Your task to perform on an android device: open the mobile data screen to see how much data has been used Image 0: 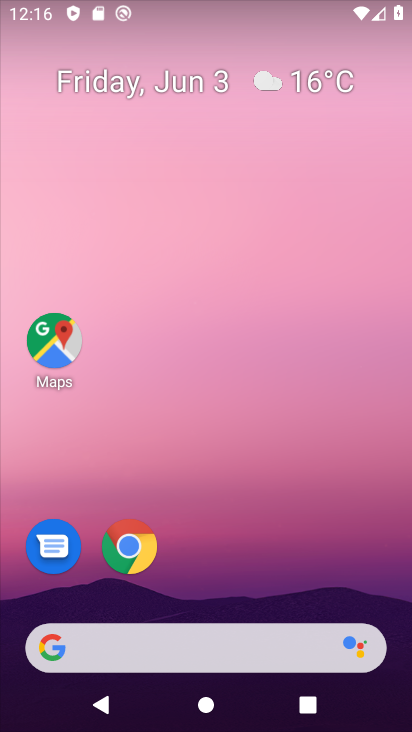
Step 0: drag from (218, 590) to (294, 94)
Your task to perform on an android device: open the mobile data screen to see how much data has been used Image 1: 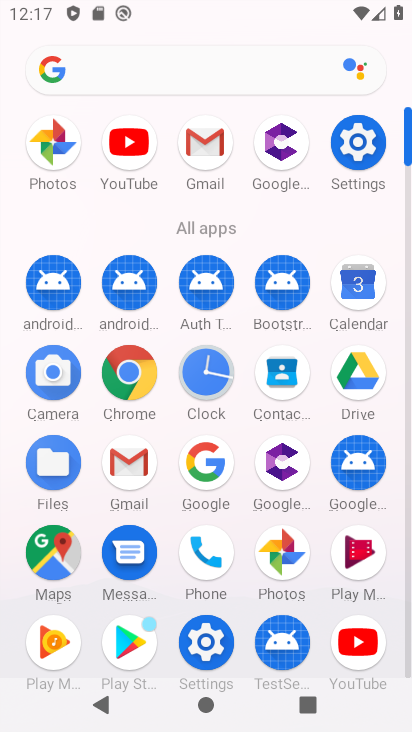
Step 1: click (364, 154)
Your task to perform on an android device: open the mobile data screen to see how much data has been used Image 2: 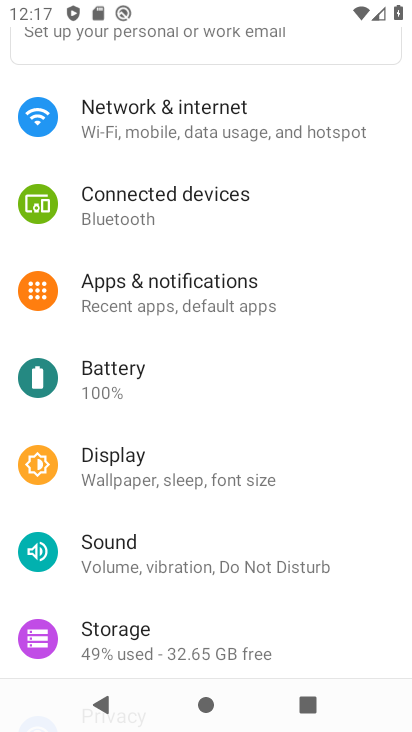
Step 2: drag from (221, 234) to (221, 419)
Your task to perform on an android device: open the mobile data screen to see how much data has been used Image 3: 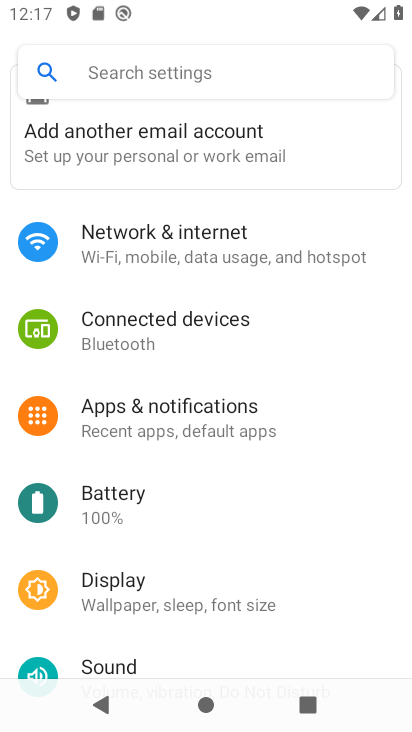
Step 3: click (154, 245)
Your task to perform on an android device: open the mobile data screen to see how much data has been used Image 4: 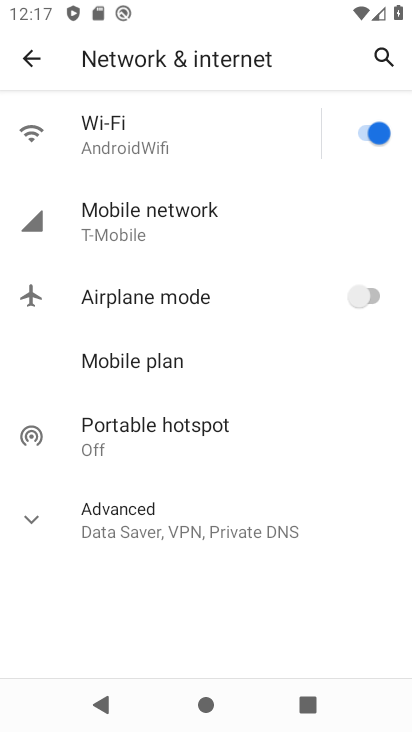
Step 4: click (144, 219)
Your task to perform on an android device: open the mobile data screen to see how much data has been used Image 5: 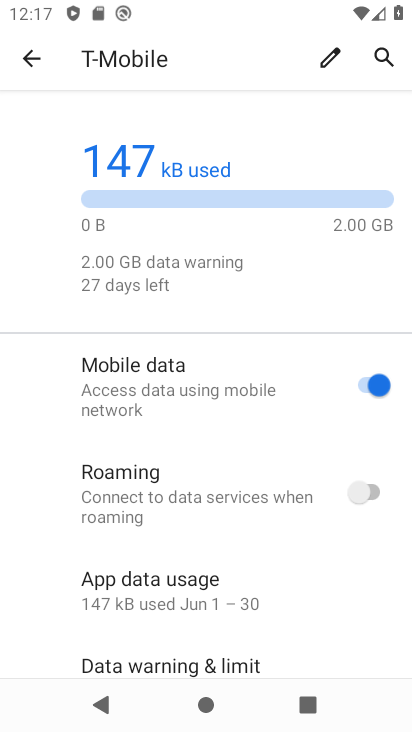
Step 5: click (171, 592)
Your task to perform on an android device: open the mobile data screen to see how much data has been used Image 6: 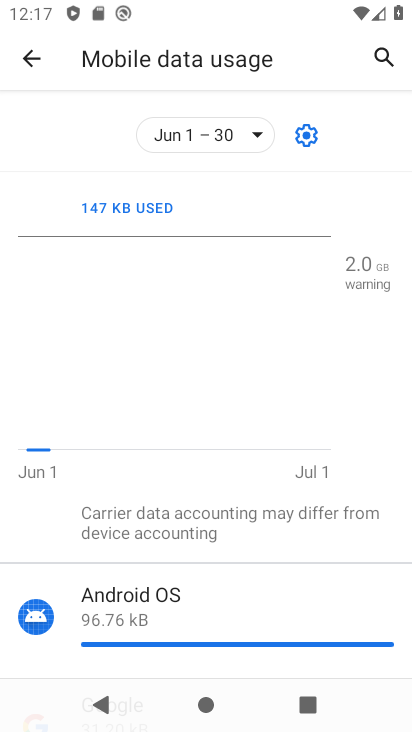
Step 6: task complete